Your task to perform on an android device: turn on priority inbox in the gmail app Image 0: 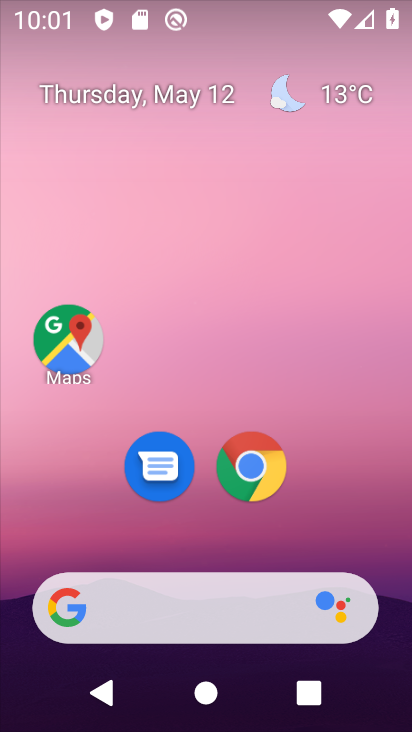
Step 0: drag from (181, 553) to (227, 47)
Your task to perform on an android device: turn on priority inbox in the gmail app Image 1: 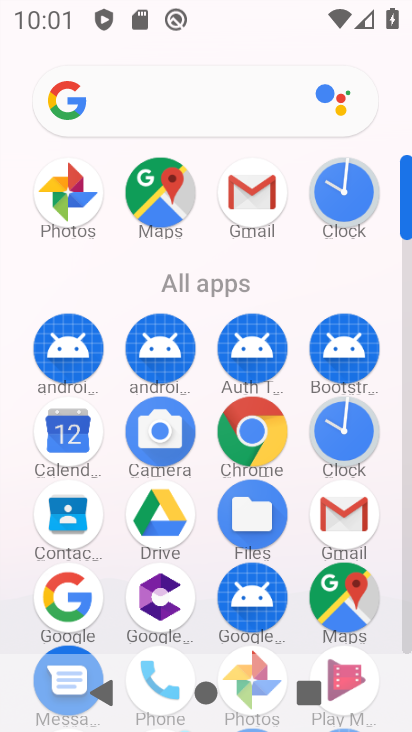
Step 1: click (254, 186)
Your task to perform on an android device: turn on priority inbox in the gmail app Image 2: 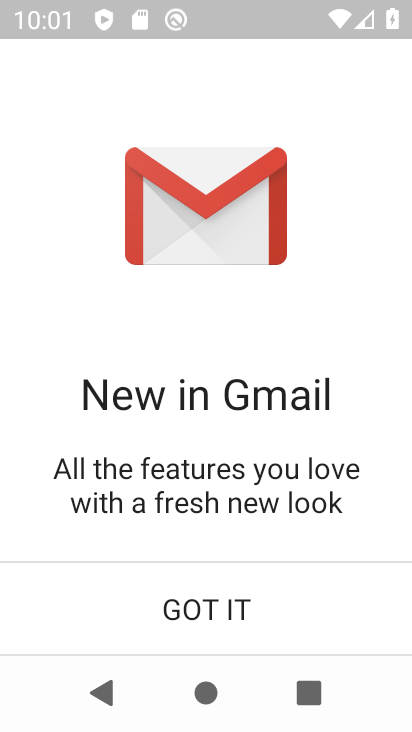
Step 2: click (224, 607)
Your task to perform on an android device: turn on priority inbox in the gmail app Image 3: 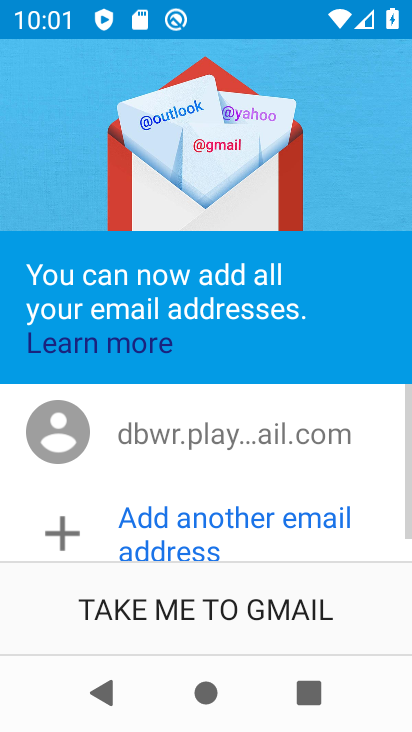
Step 3: click (209, 610)
Your task to perform on an android device: turn on priority inbox in the gmail app Image 4: 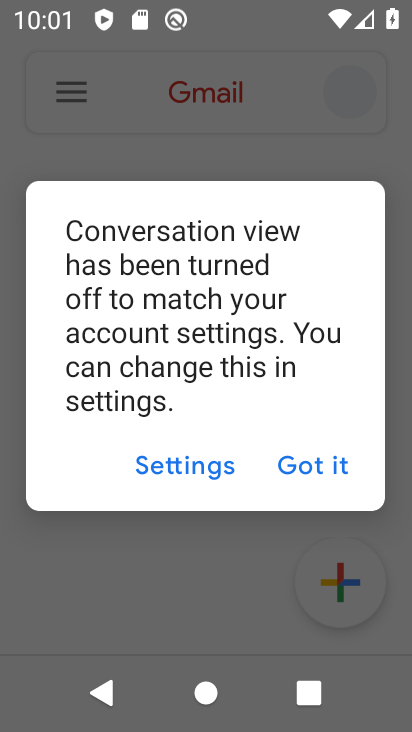
Step 4: click (298, 470)
Your task to perform on an android device: turn on priority inbox in the gmail app Image 5: 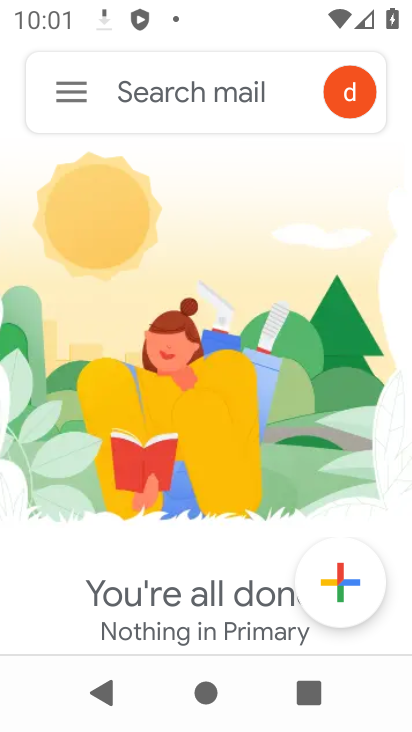
Step 5: click (59, 85)
Your task to perform on an android device: turn on priority inbox in the gmail app Image 6: 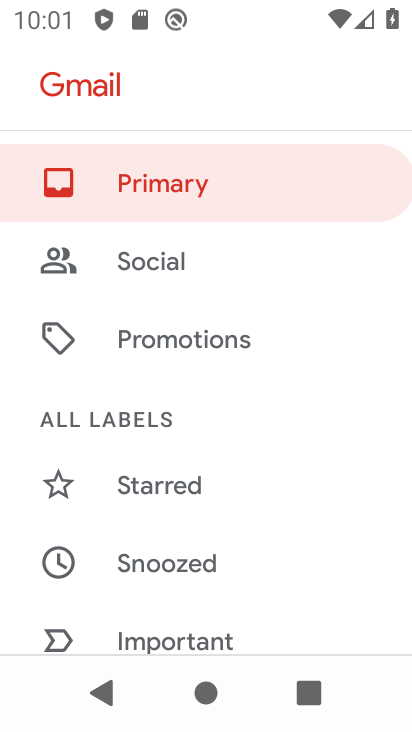
Step 6: drag from (173, 564) to (246, 81)
Your task to perform on an android device: turn on priority inbox in the gmail app Image 7: 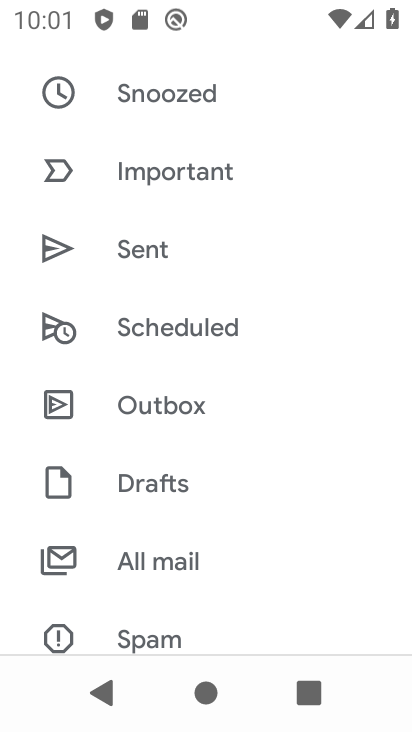
Step 7: drag from (216, 357) to (232, 70)
Your task to perform on an android device: turn on priority inbox in the gmail app Image 8: 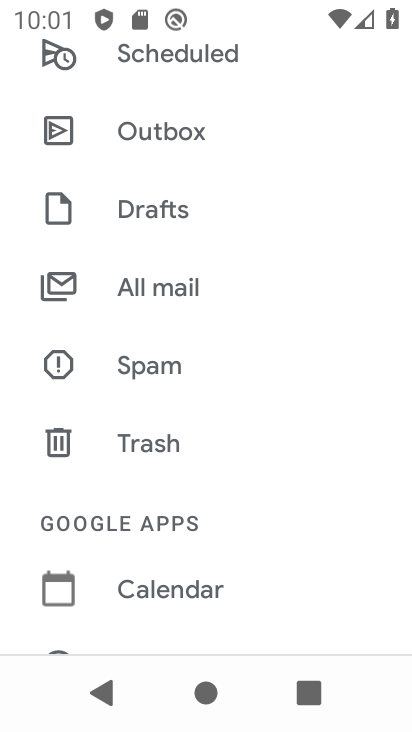
Step 8: drag from (172, 615) to (247, 71)
Your task to perform on an android device: turn on priority inbox in the gmail app Image 9: 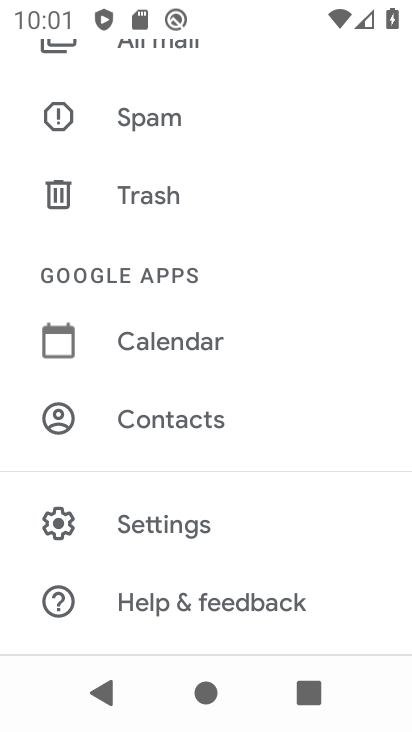
Step 9: click (141, 519)
Your task to perform on an android device: turn on priority inbox in the gmail app Image 10: 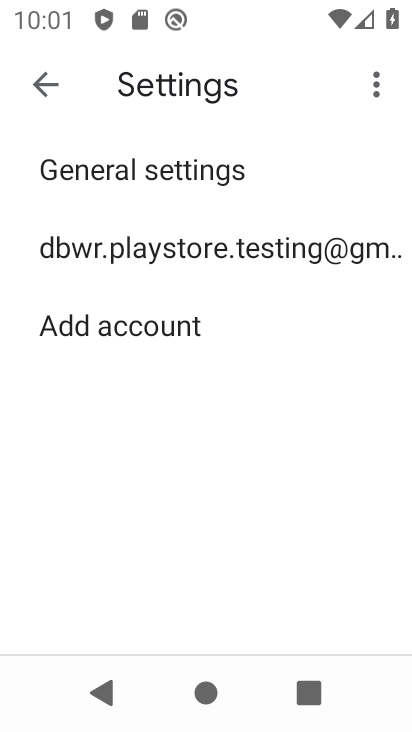
Step 10: click (167, 264)
Your task to perform on an android device: turn on priority inbox in the gmail app Image 11: 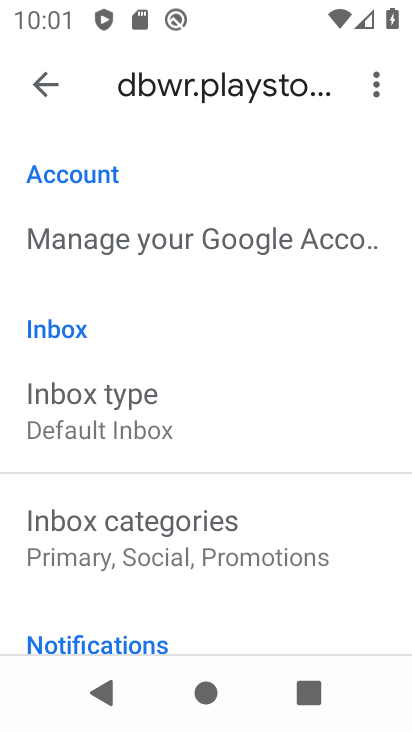
Step 11: click (129, 429)
Your task to perform on an android device: turn on priority inbox in the gmail app Image 12: 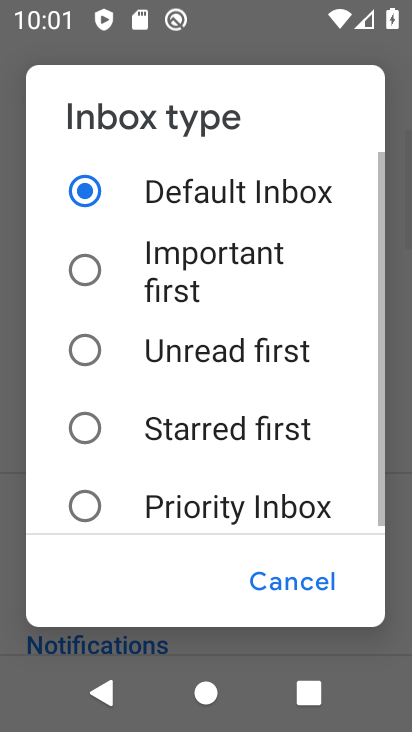
Step 12: click (86, 502)
Your task to perform on an android device: turn on priority inbox in the gmail app Image 13: 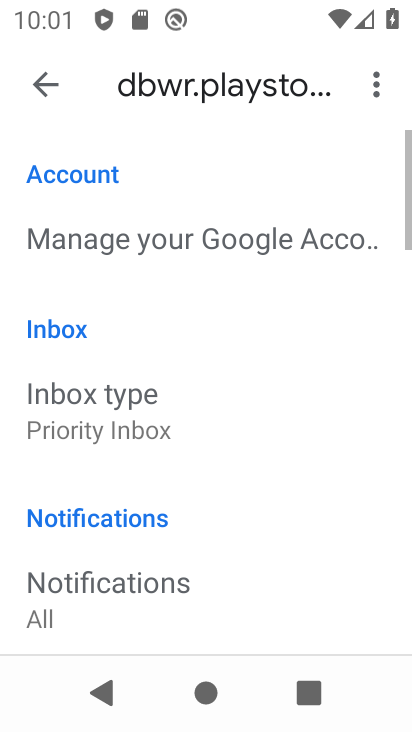
Step 13: task complete